Your task to perform on an android device: What's on my calendar today? Image 0: 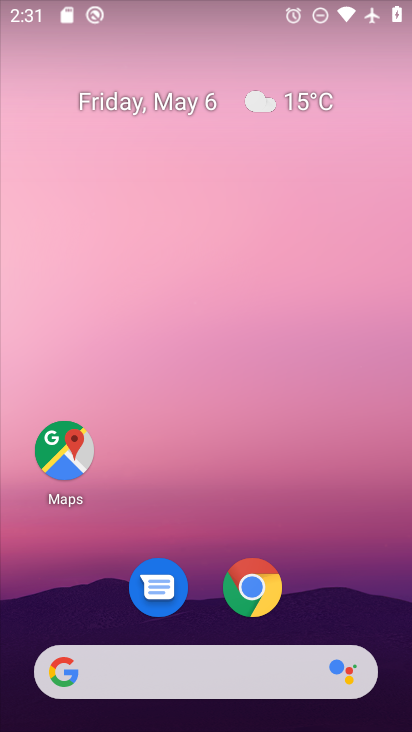
Step 0: drag from (321, 458) to (206, 29)
Your task to perform on an android device: What's on my calendar today? Image 1: 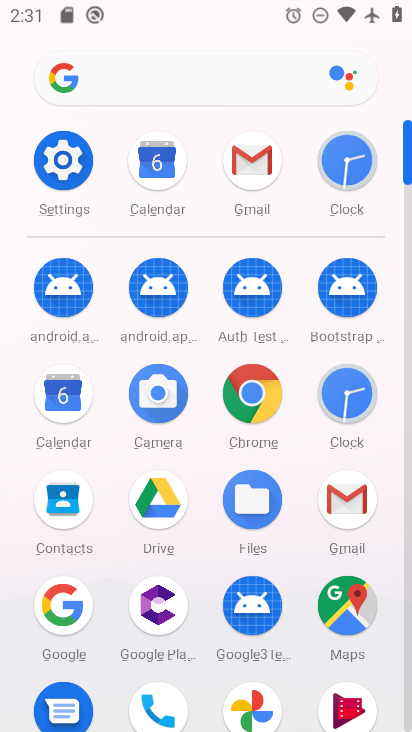
Step 1: click (68, 399)
Your task to perform on an android device: What's on my calendar today? Image 2: 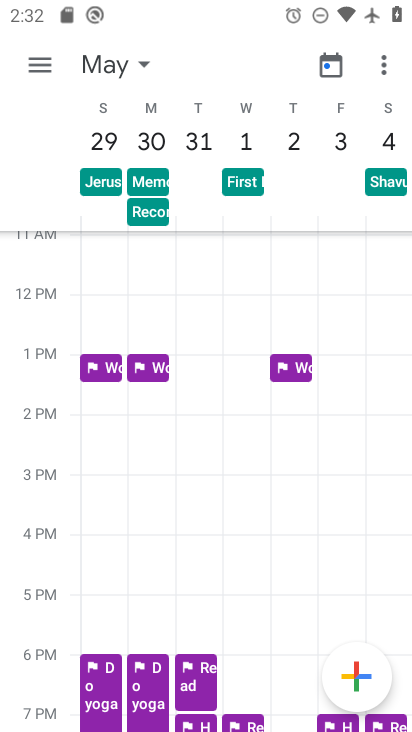
Step 2: drag from (33, 590) to (28, 305)
Your task to perform on an android device: What's on my calendar today? Image 3: 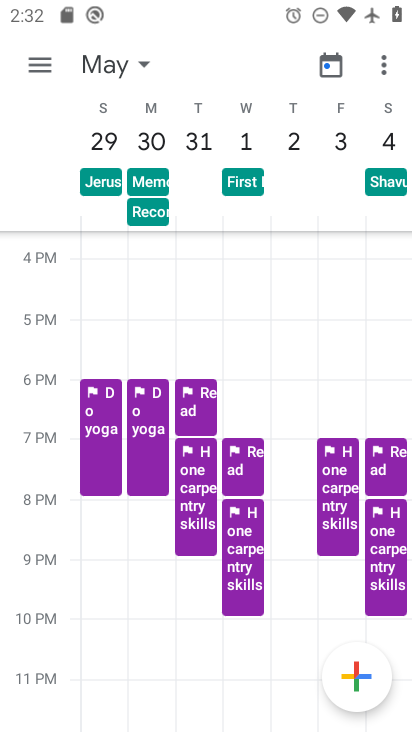
Step 3: click (126, 57)
Your task to perform on an android device: What's on my calendar today? Image 4: 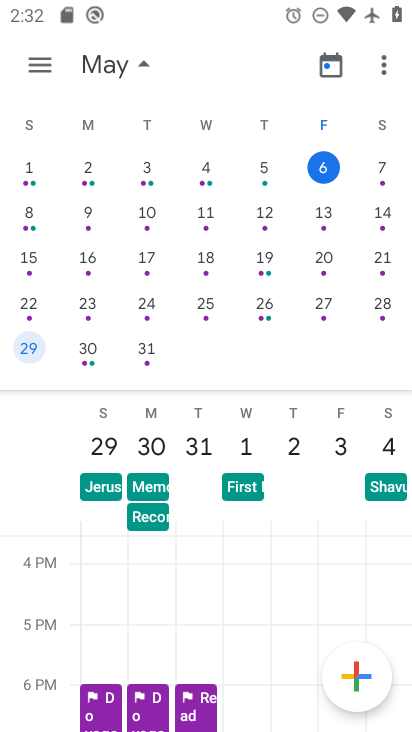
Step 4: click (324, 168)
Your task to perform on an android device: What's on my calendar today? Image 5: 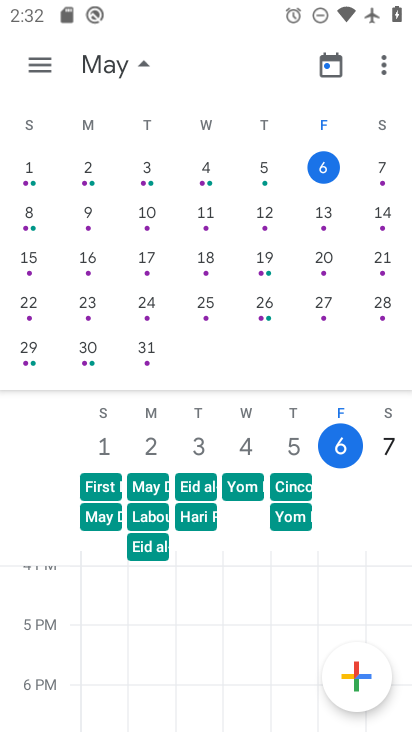
Step 5: task complete